Your task to perform on an android device: add a contact Image 0: 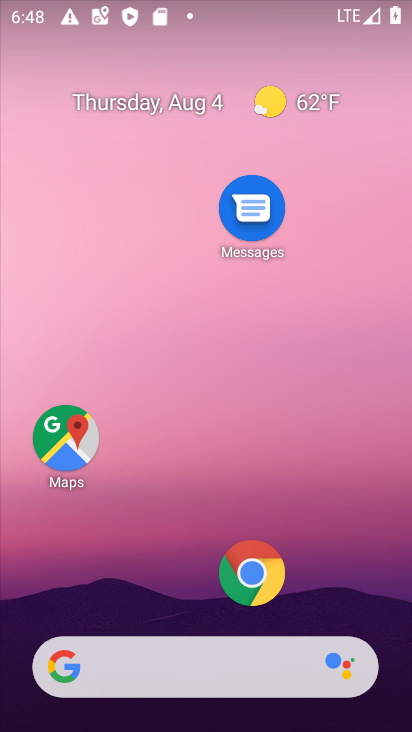
Step 0: press home button
Your task to perform on an android device: add a contact Image 1: 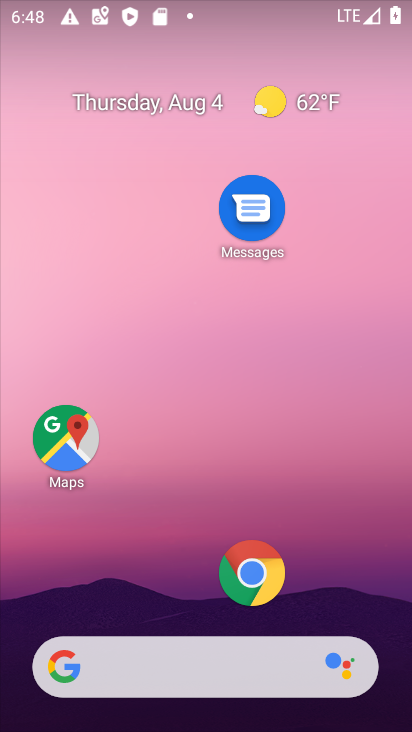
Step 1: drag from (156, 587) to (254, 110)
Your task to perform on an android device: add a contact Image 2: 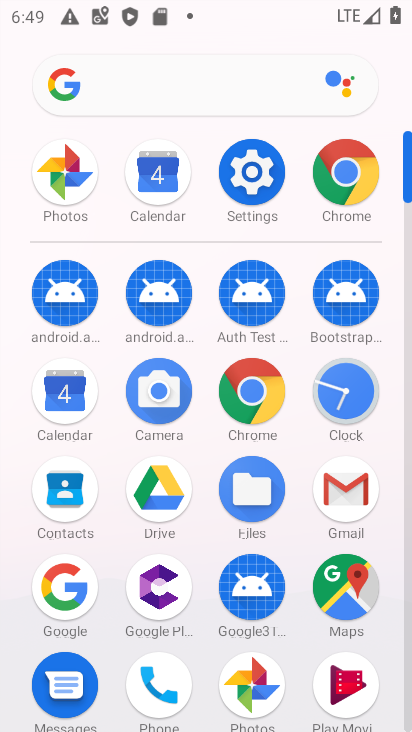
Step 2: drag from (110, 657) to (178, 176)
Your task to perform on an android device: add a contact Image 3: 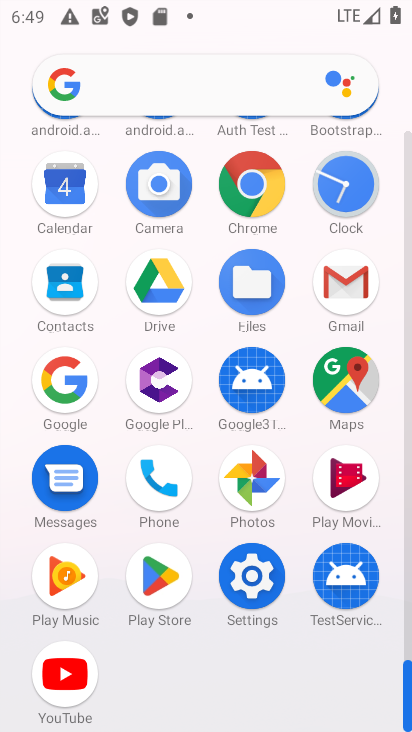
Step 3: click (53, 292)
Your task to perform on an android device: add a contact Image 4: 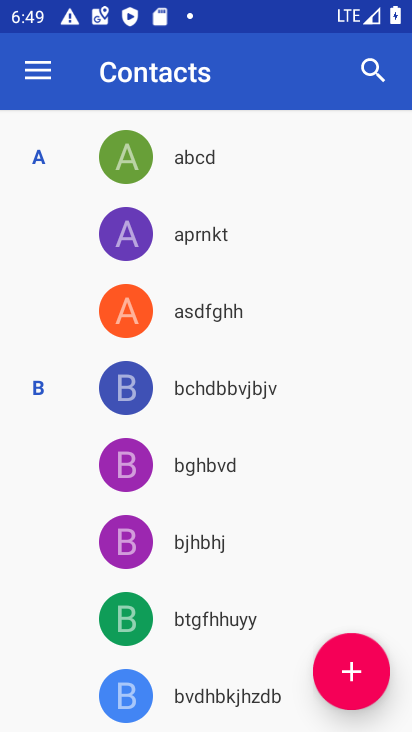
Step 4: click (346, 671)
Your task to perform on an android device: add a contact Image 5: 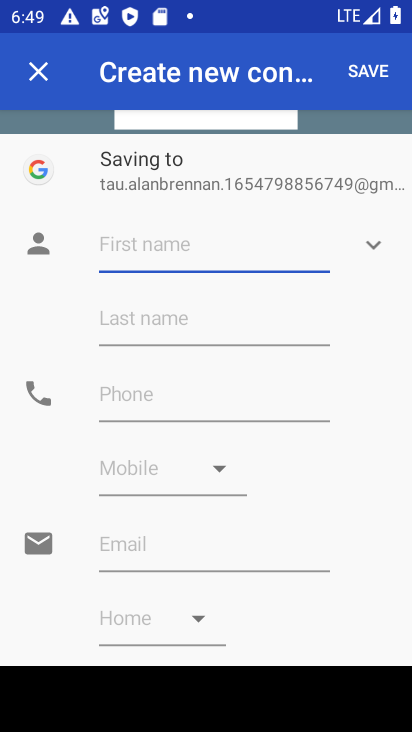
Step 5: type "vbvvvb bv "
Your task to perform on an android device: add a contact Image 6: 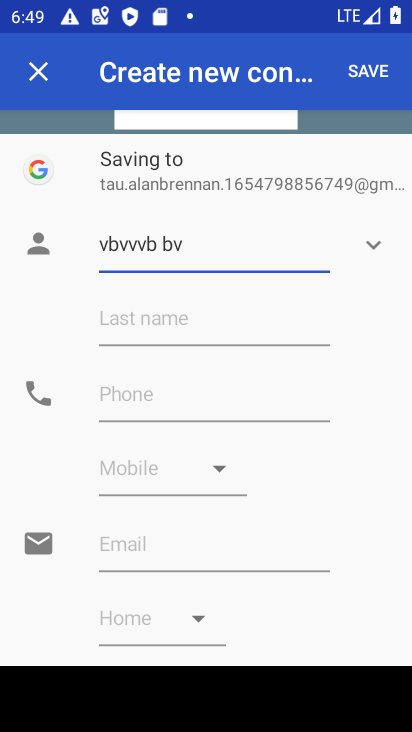
Step 6: click (174, 385)
Your task to perform on an android device: add a contact Image 7: 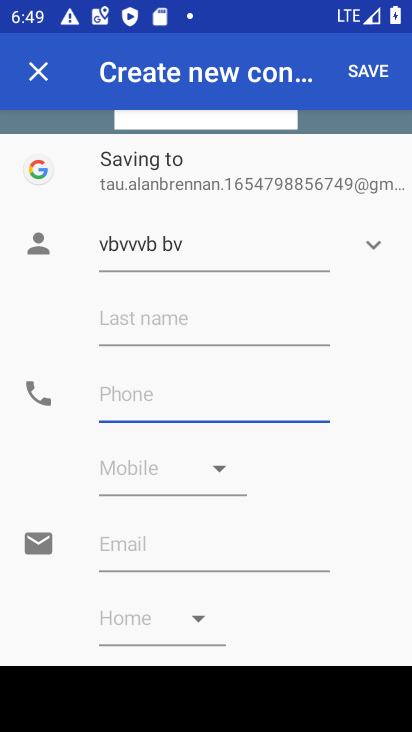
Step 7: type "6565656"
Your task to perform on an android device: add a contact Image 8: 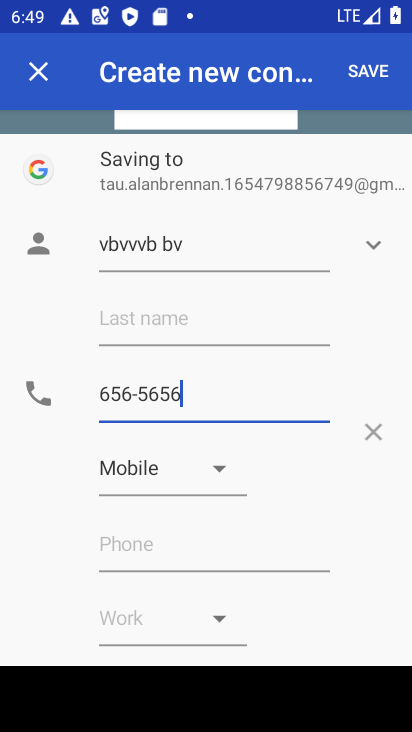
Step 8: click (374, 69)
Your task to perform on an android device: add a contact Image 9: 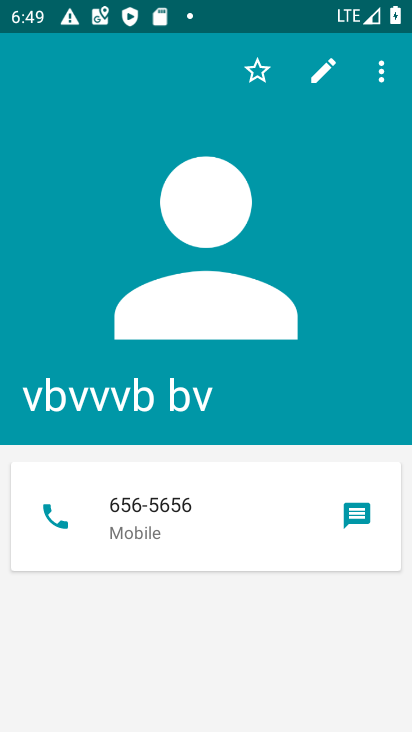
Step 9: task complete